Your task to perform on an android device: Open the phone app and click the voicemail tab. Image 0: 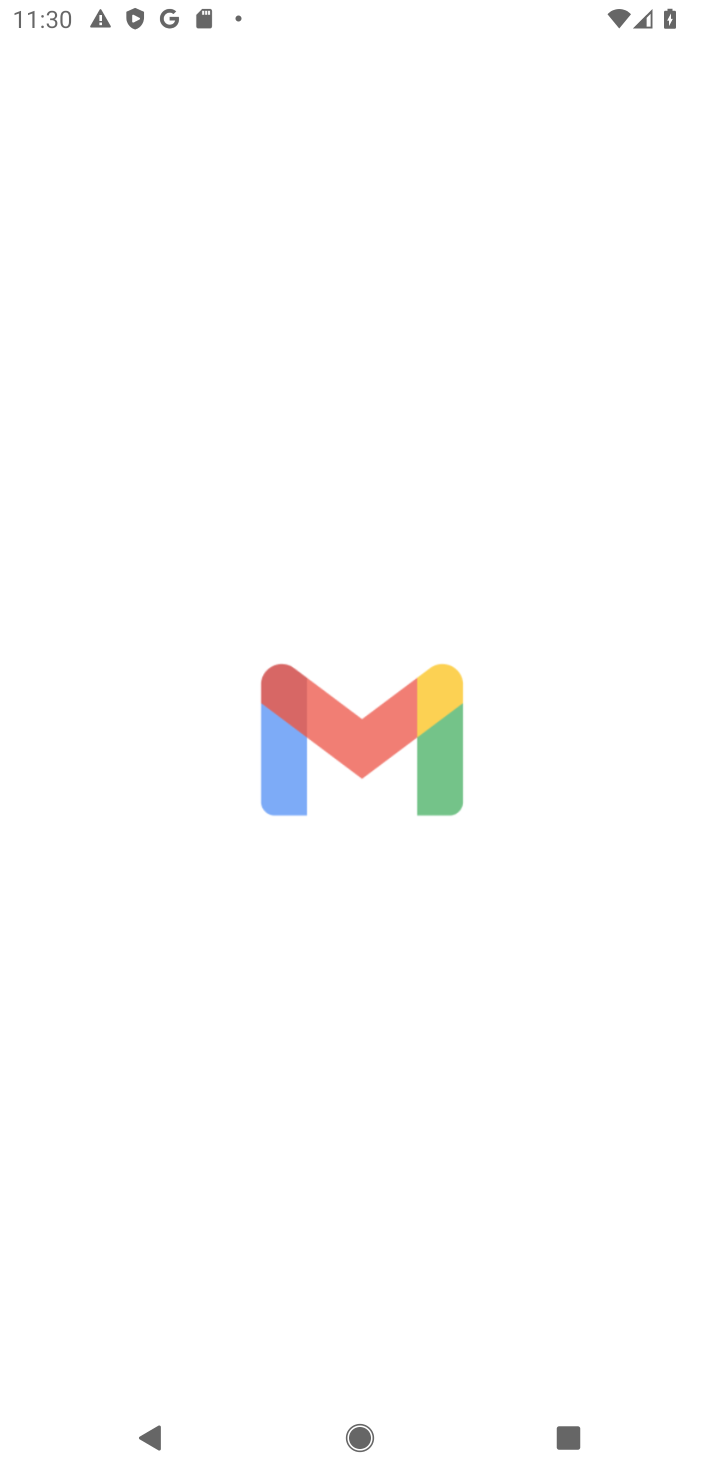
Step 0: press home button
Your task to perform on an android device: Open the phone app and click the voicemail tab. Image 1: 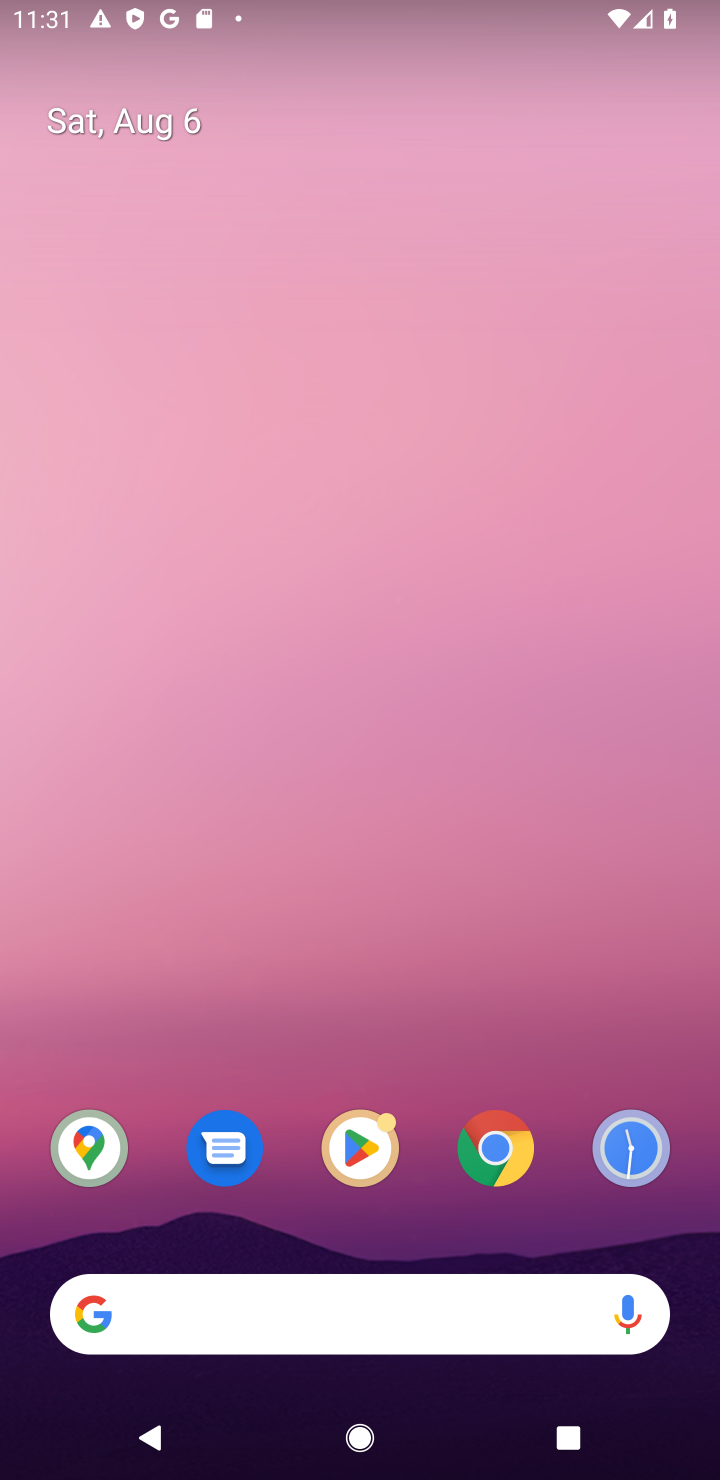
Step 1: drag from (462, 1025) to (362, 158)
Your task to perform on an android device: Open the phone app and click the voicemail tab. Image 2: 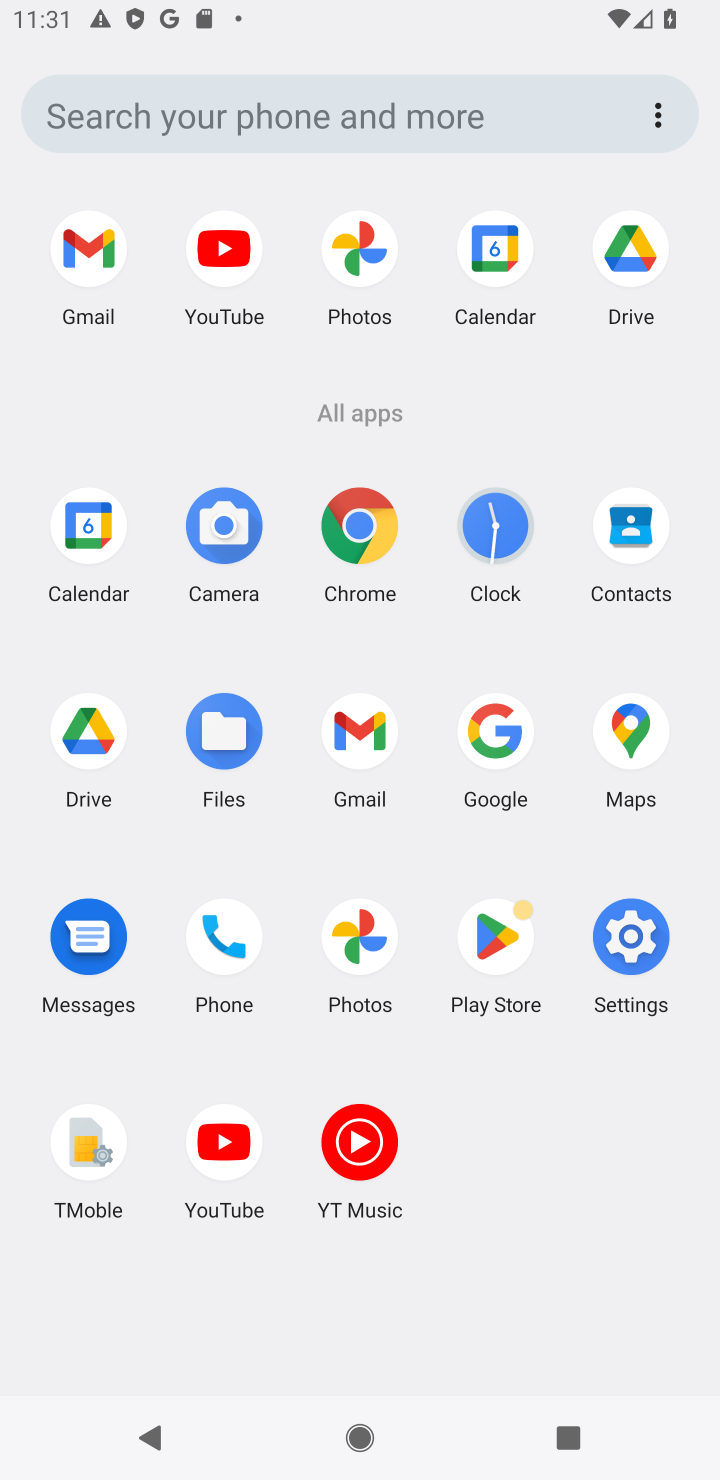
Step 2: click (223, 943)
Your task to perform on an android device: Open the phone app and click the voicemail tab. Image 3: 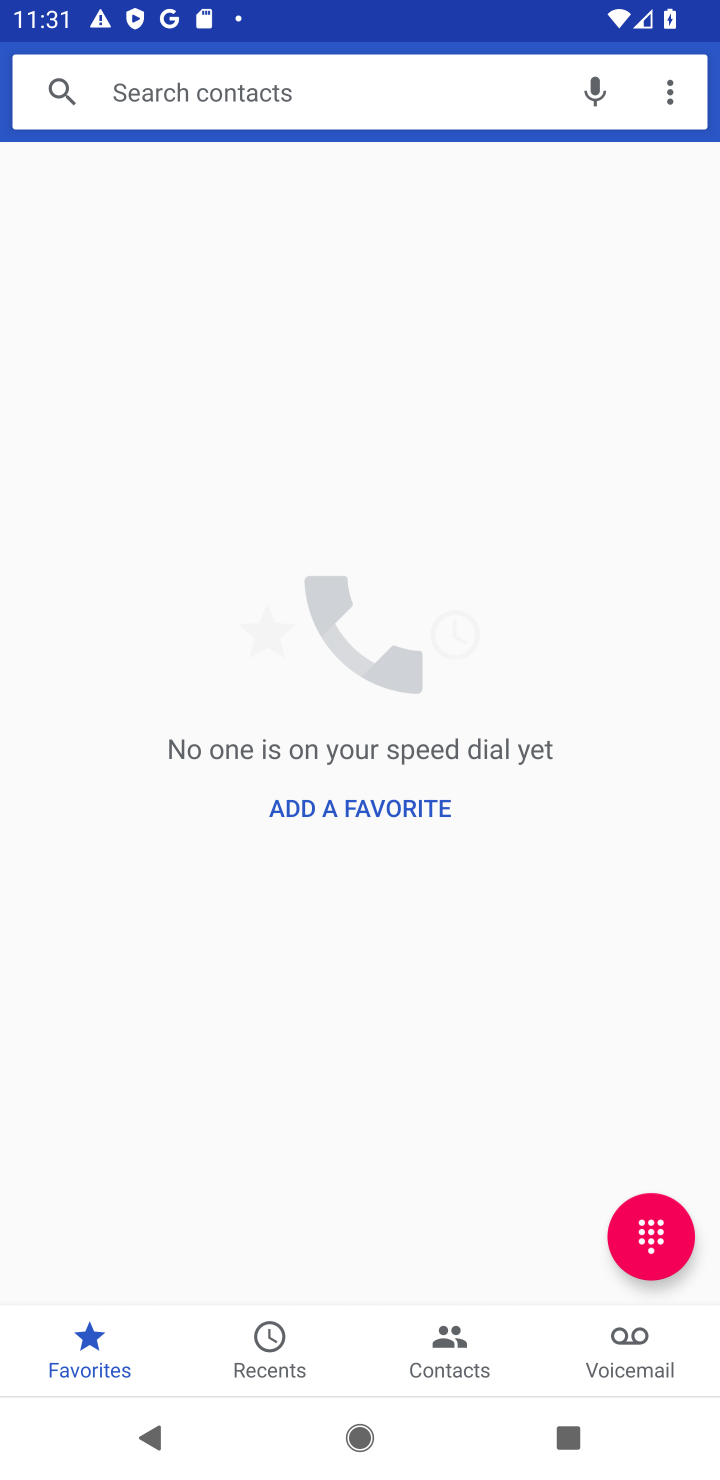
Step 3: click (625, 1329)
Your task to perform on an android device: Open the phone app and click the voicemail tab. Image 4: 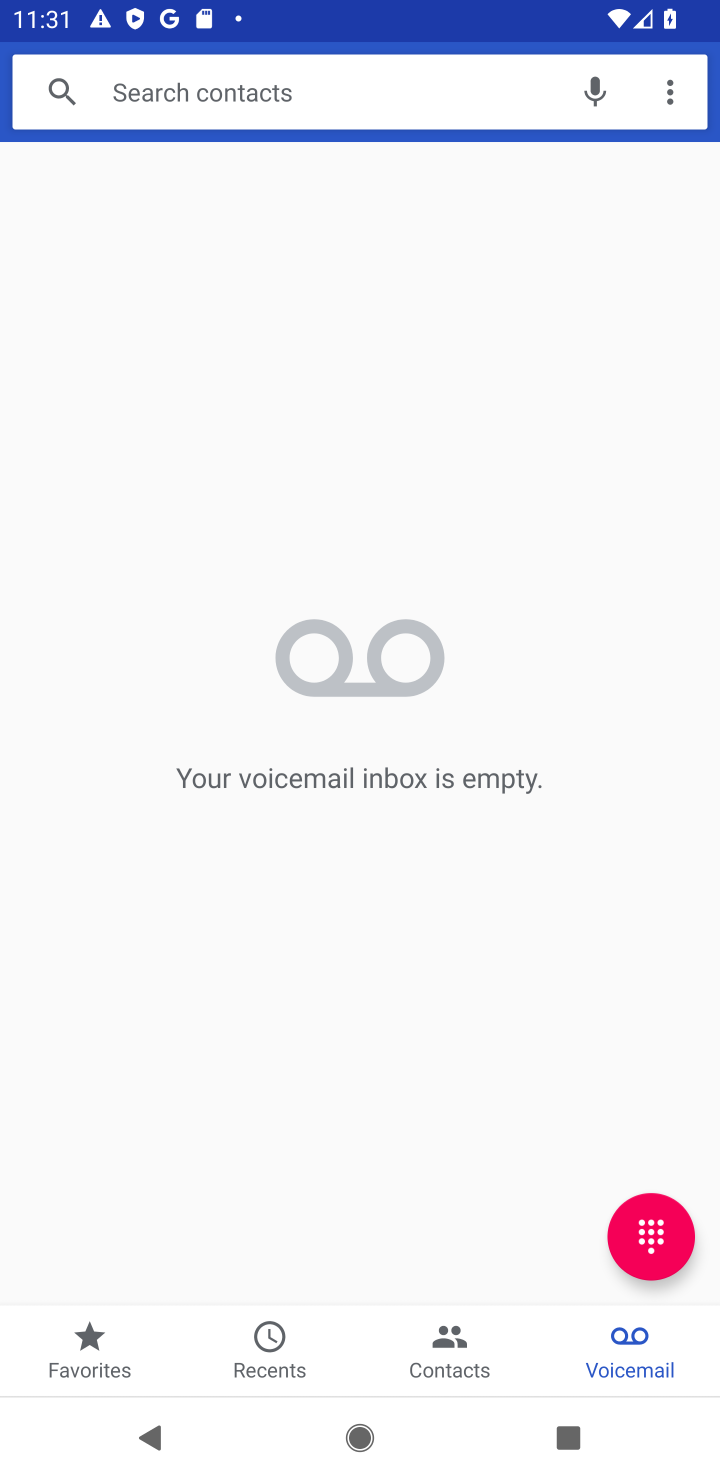
Step 4: task complete